Your task to perform on an android device: Go to Google Image 0: 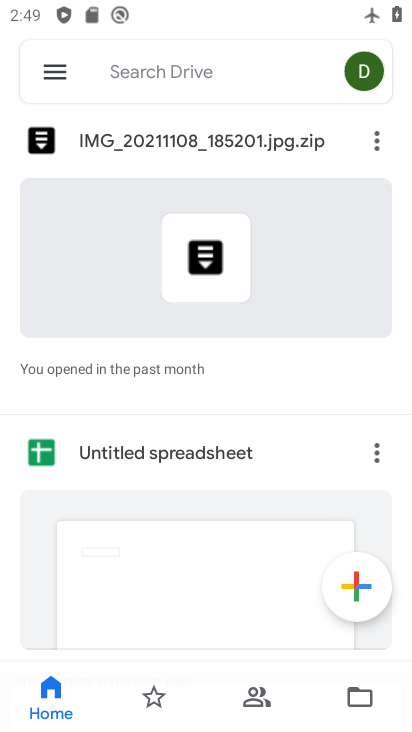
Step 0: press home button
Your task to perform on an android device: Go to Google Image 1: 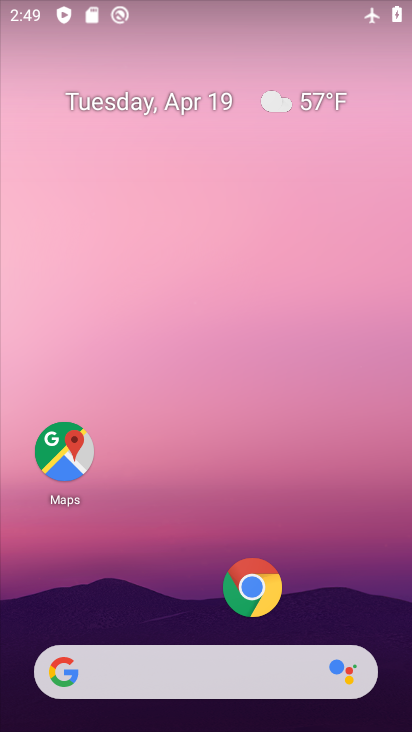
Step 1: click (153, 667)
Your task to perform on an android device: Go to Google Image 2: 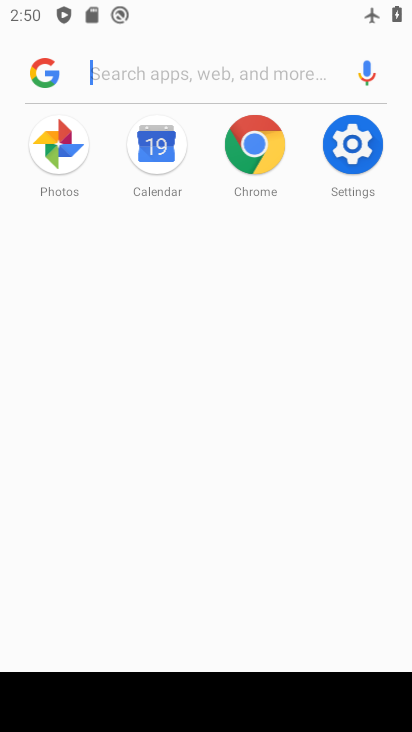
Step 2: click (49, 67)
Your task to perform on an android device: Go to Google Image 3: 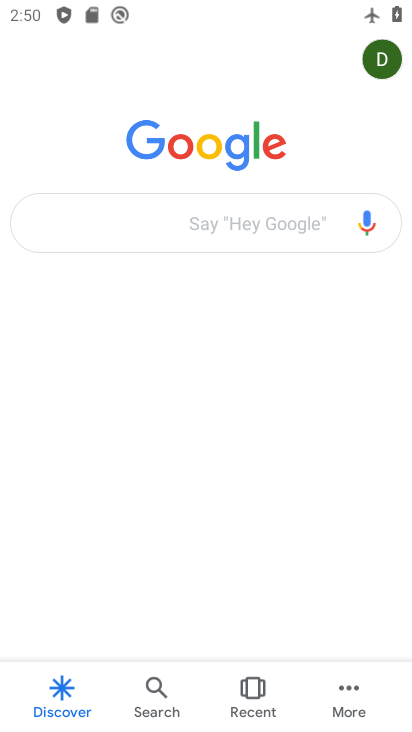
Step 3: task complete